Your task to perform on an android device: see sites visited before in the chrome app Image 0: 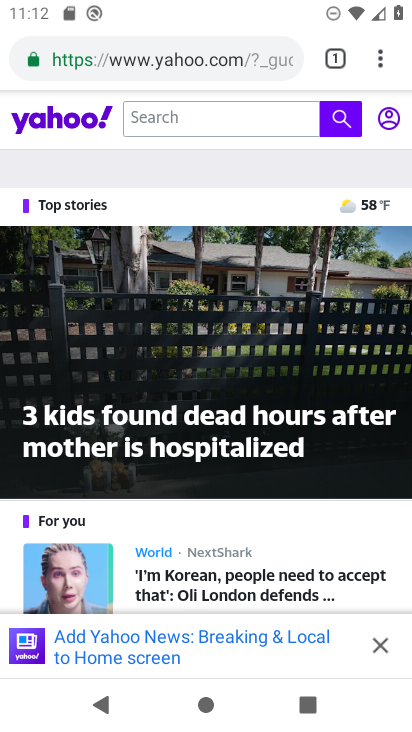
Step 0: press home button
Your task to perform on an android device: see sites visited before in the chrome app Image 1: 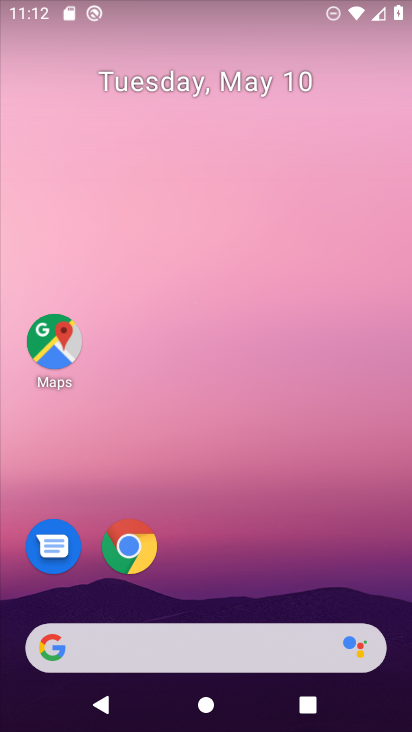
Step 1: click (128, 548)
Your task to perform on an android device: see sites visited before in the chrome app Image 2: 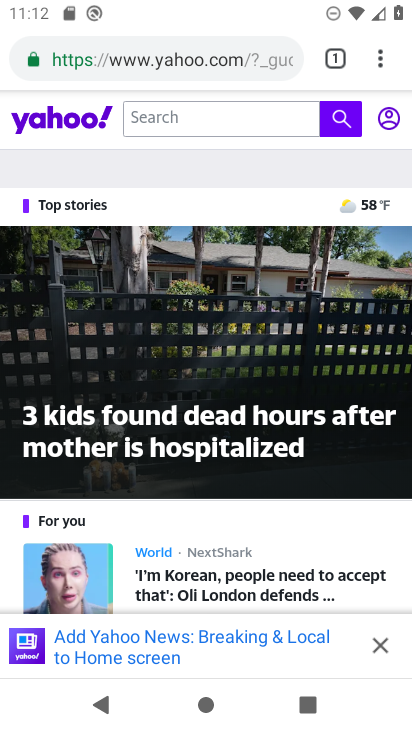
Step 2: task complete